Your task to perform on an android device: Open CNN.com Image 0: 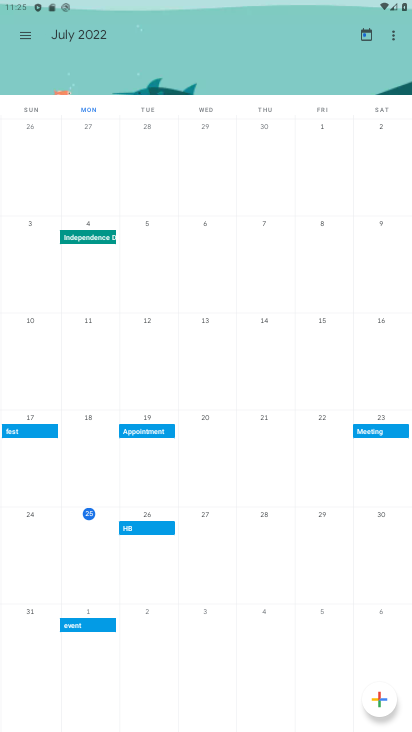
Step 0: press home button
Your task to perform on an android device: Open CNN.com Image 1: 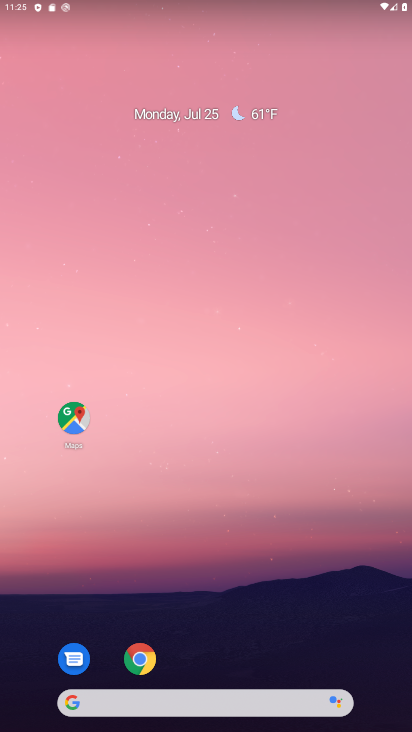
Step 1: drag from (201, 726) to (201, 171)
Your task to perform on an android device: Open CNN.com Image 2: 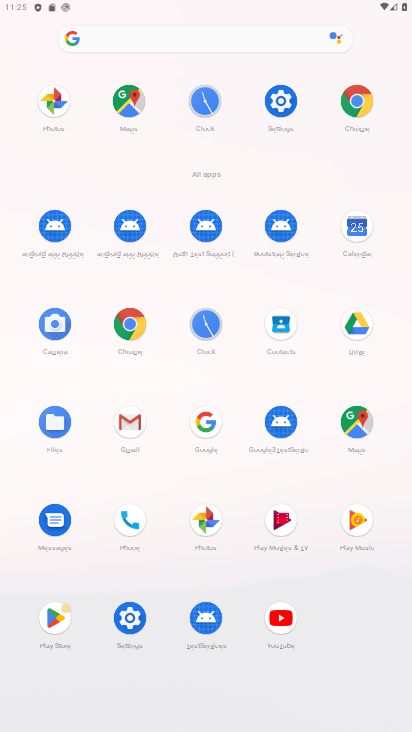
Step 2: click (126, 325)
Your task to perform on an android device: Open CNN.com Image 3: 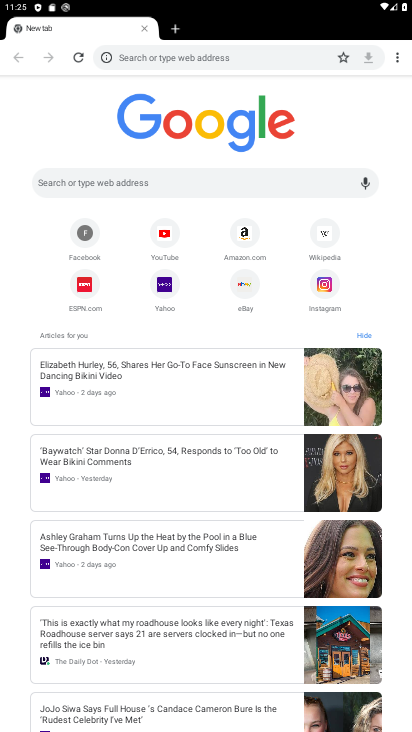
Step 3: click (202, 177)
Your task to perform on an android device: Open CNN.com Image 4: 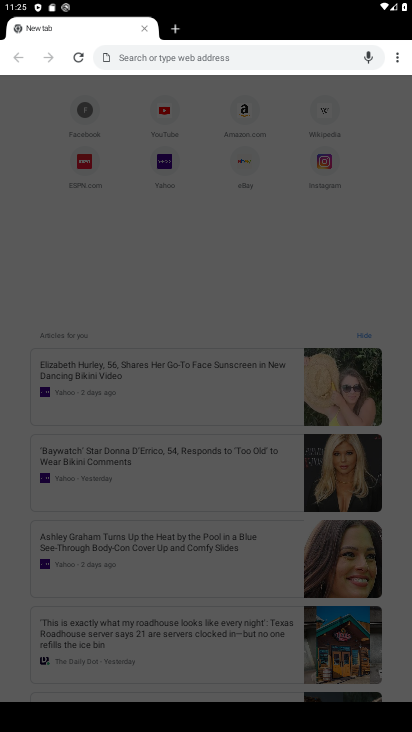
Step 4: type "CNN.com"
Your task to perform on an android device: Open CNN.com Image 5: 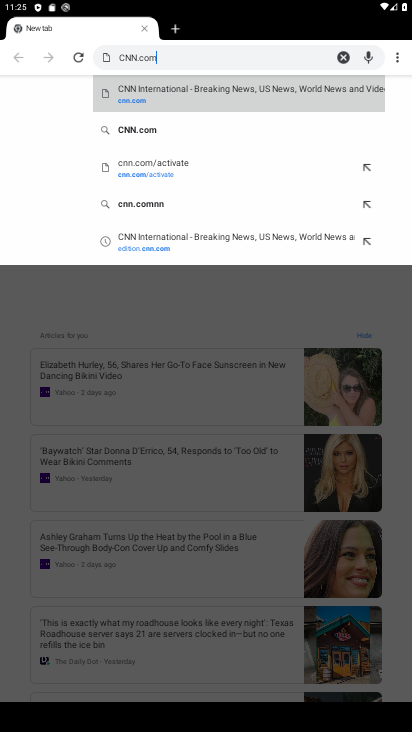
Step 5: type ""
Your task to perform on an android device: Open CNN.com Image 6: 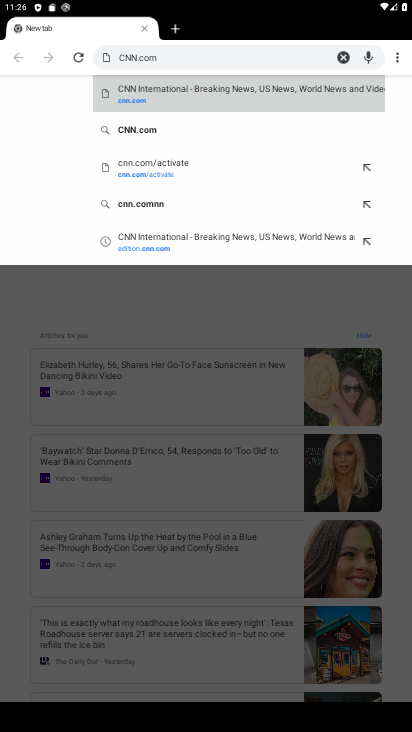
Step 6: click (143, 93)
Your task to perform on an android device: Open CNN.com Image 7: 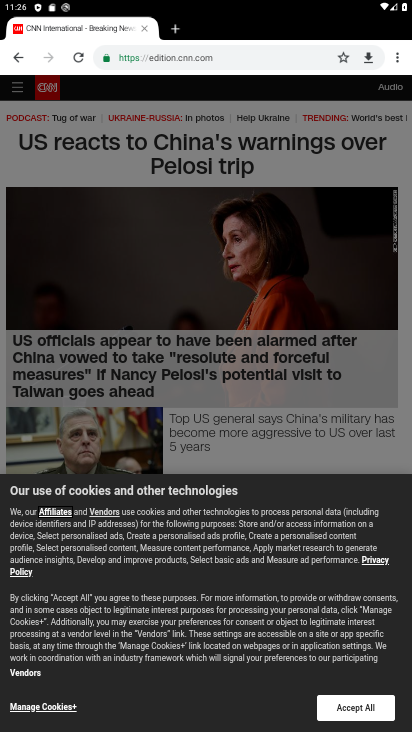
Step 7: task complete